Your task to perform on an android device: open sync settings in chrome Image 0: 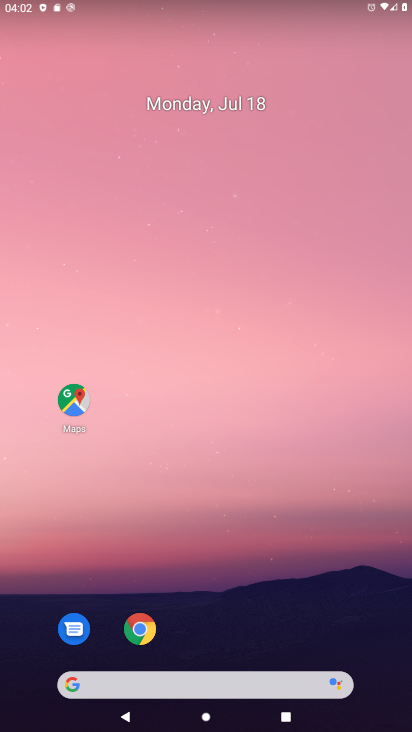
Step 0: click (143, 625)
Your task to perform on an android device: open sync settings in chrome Image 1: 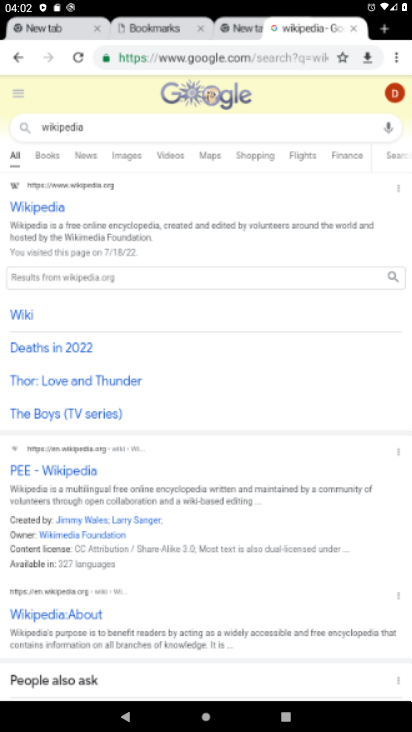
Step 1: click (390, 55)
Your task to perform on an android device: open sync settings in chrome Image 2: 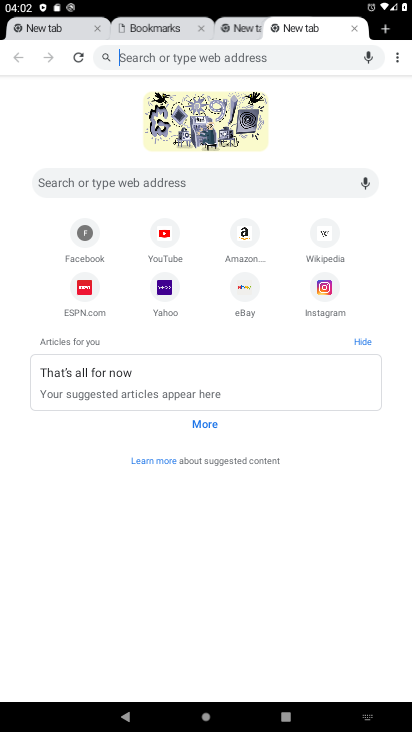
Step 2: click (397, 55)
Your task to perform on an android device: open sync settings in chrome Image 3: 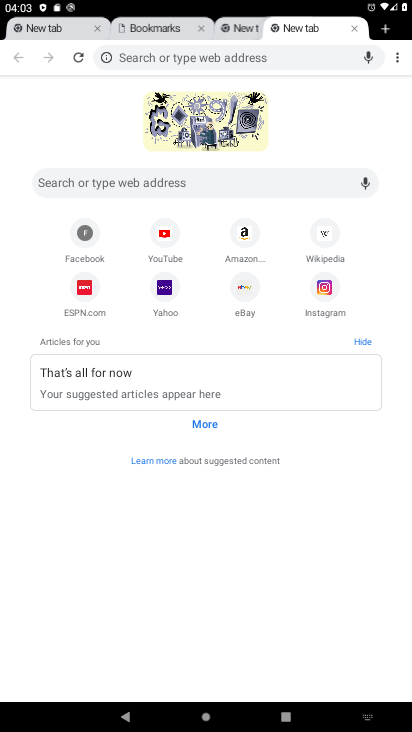
Step 3: click (395, 58)
Your task to perform on an android device: open sync settings in chrome Image 4: 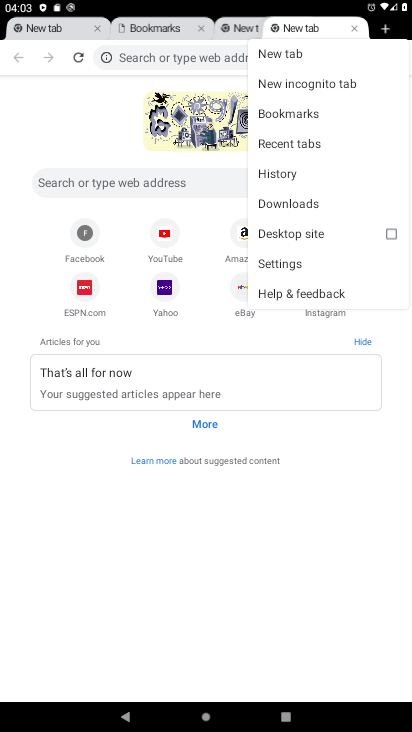
Step 4: click (284, 265)
Your task to perform on an android device: open sync settings in chrome Image 5: 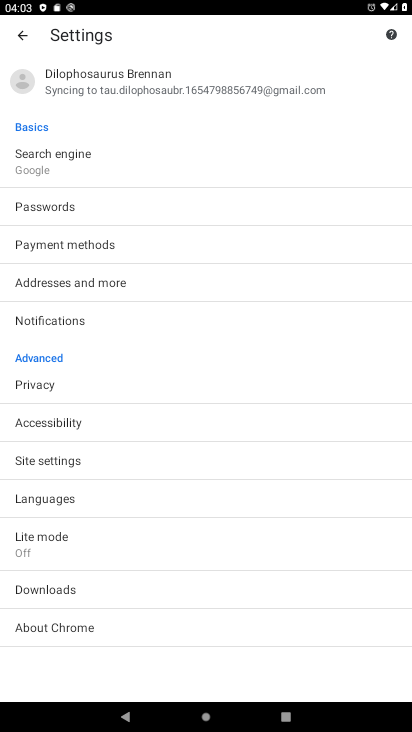
Step 5: click (45, 455)
Your task to perform on an android device: open sync settings in chrome Image 6: 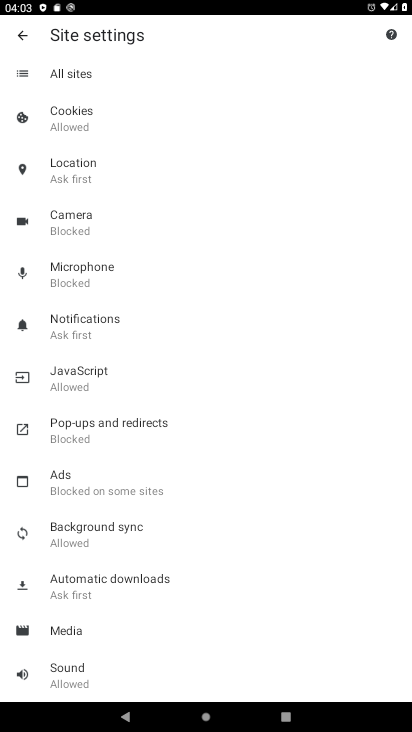
Step 6: click (88, 533)
Your task to perform on an android device: open sync settings in chrome Image 7: 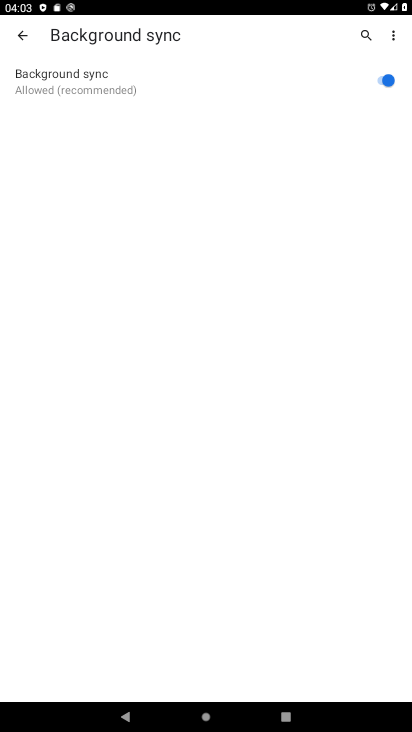
Step 7: task complete